Your task to perform on an android device: Open accessibility settings Image 0: 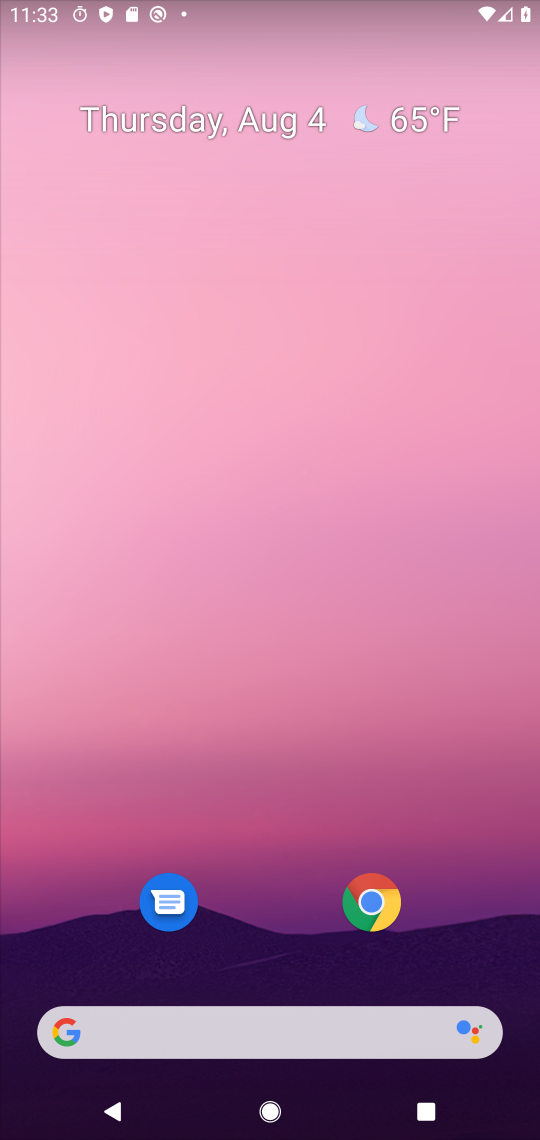
Step 0: press home button
Your task to perform on an android device: Open accessibility settings Image 1: 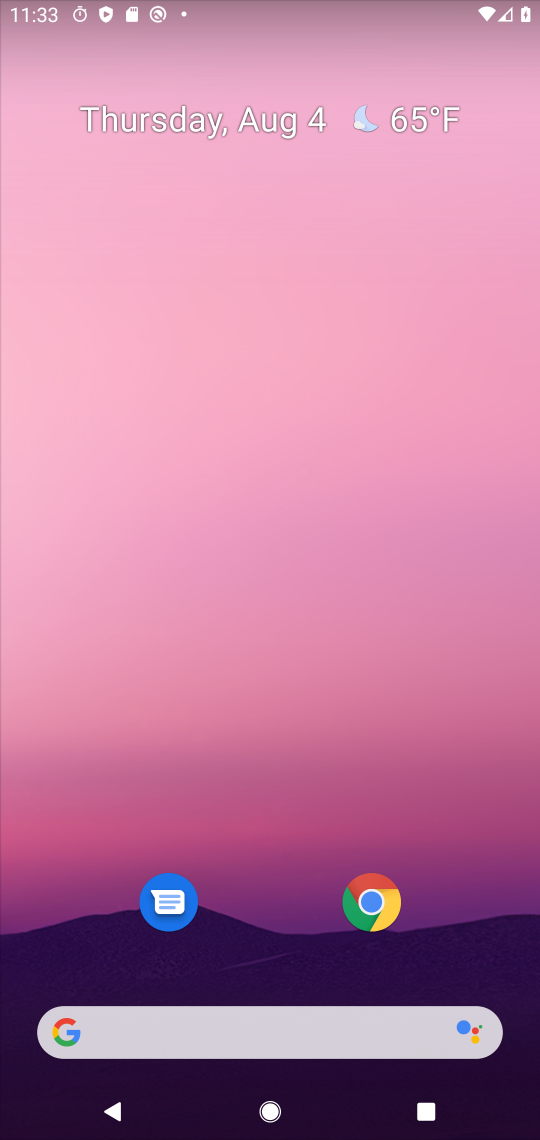
Step 1: drag from (334, 1052) to (289, 280)
Your task to perform on an android device: Open accessibility settings Image 2: 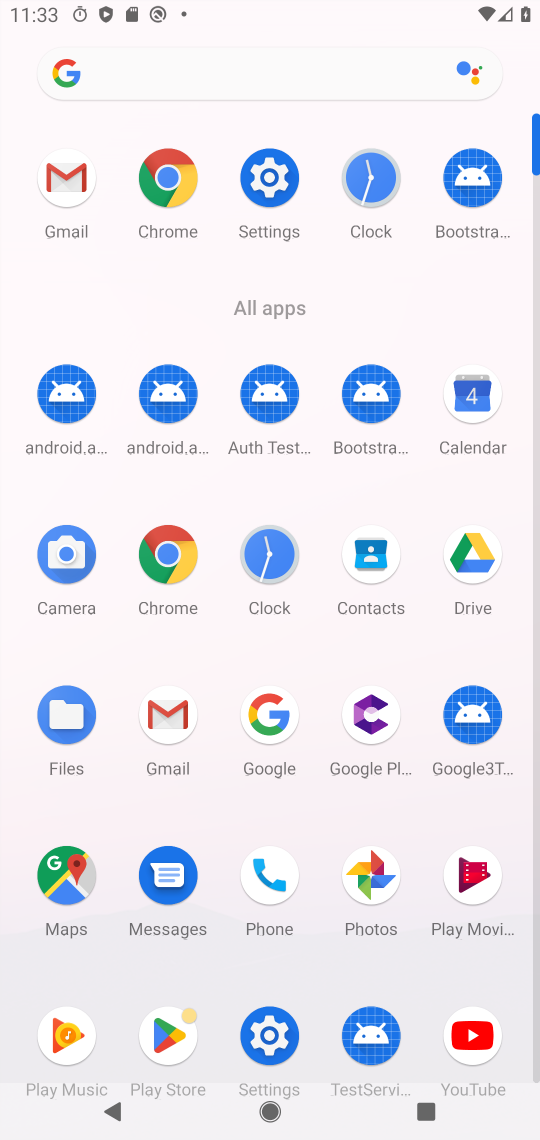
Step 2: click (333, 150)
Your task to perform on an android device: Open accessibility settings Image 3: 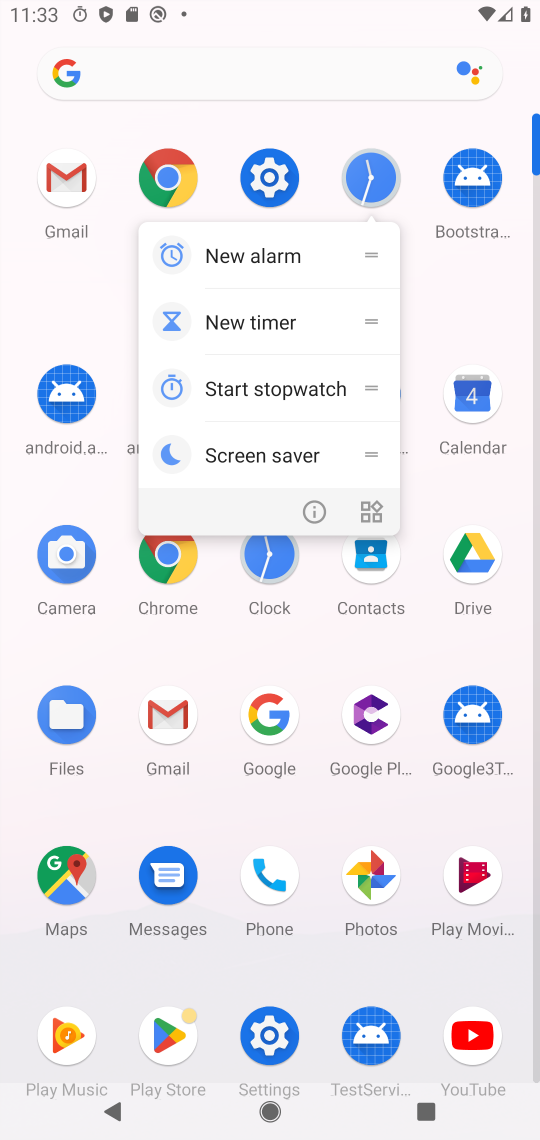
Step 3: click (241, 182)
Your task to perform on an android device: Open accessibility settings Image 4: 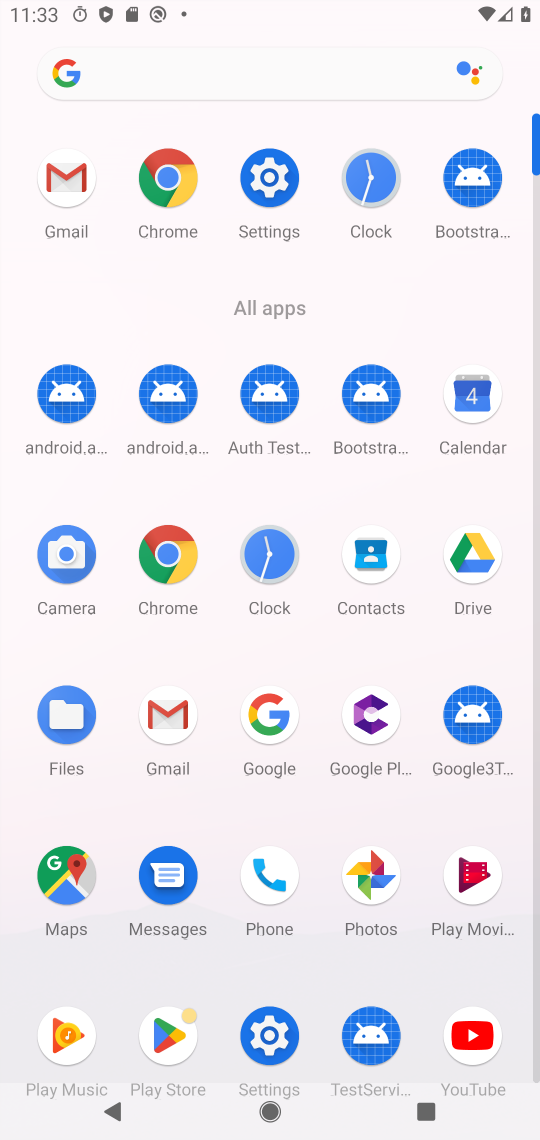
Step 4: click (273, 191)
Your task to perform on an android device: Open accessibility settings Image 5: 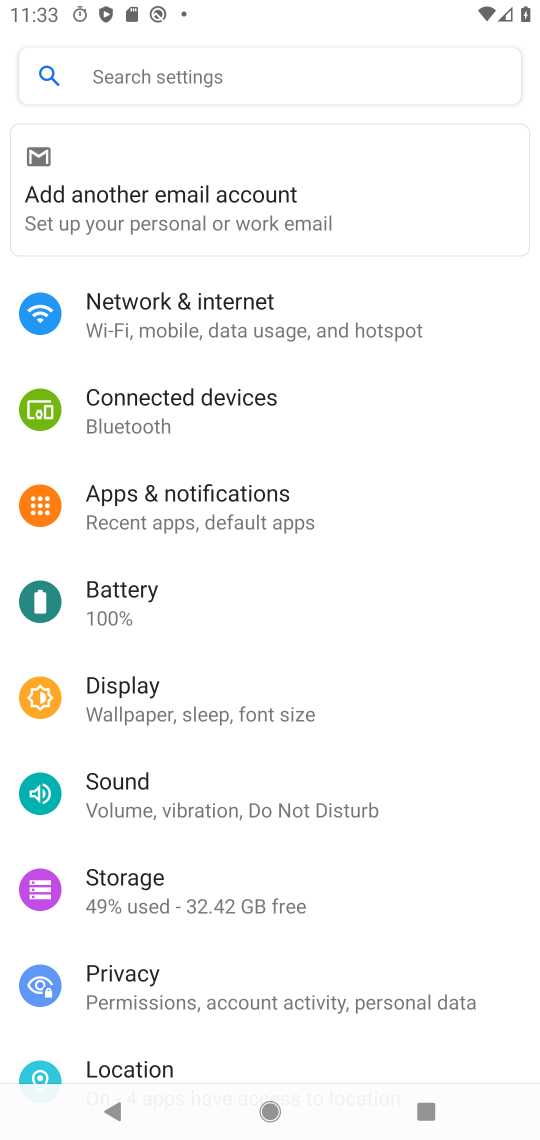
Step 5: click (150, 77)
Your task to perform on an android device: Open accessibility settings Image 6: 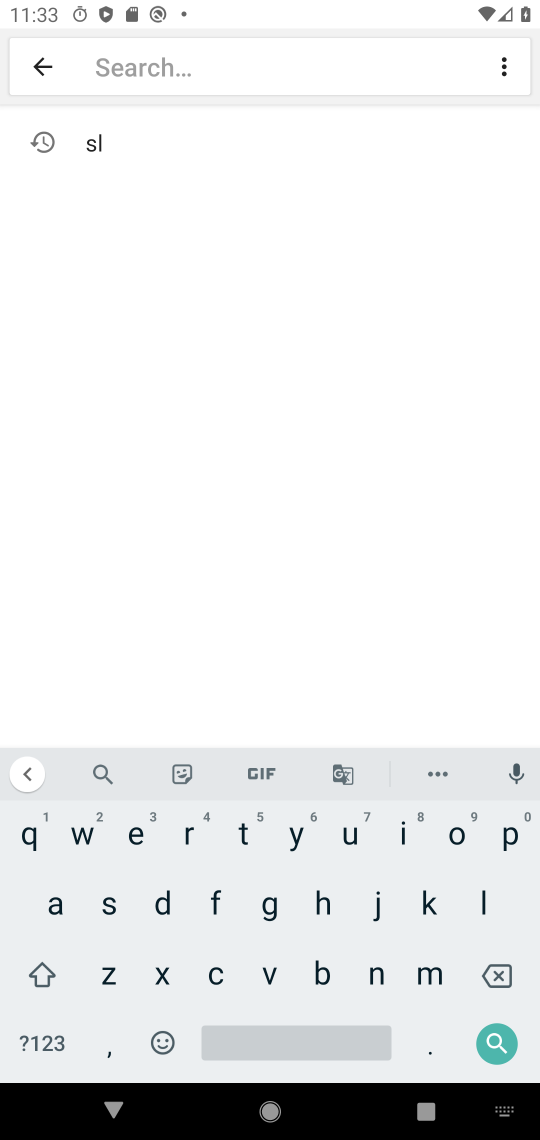
Step 6: click (51, 897)
Your task to perform on an android device: Open accessibility settings Image 7: 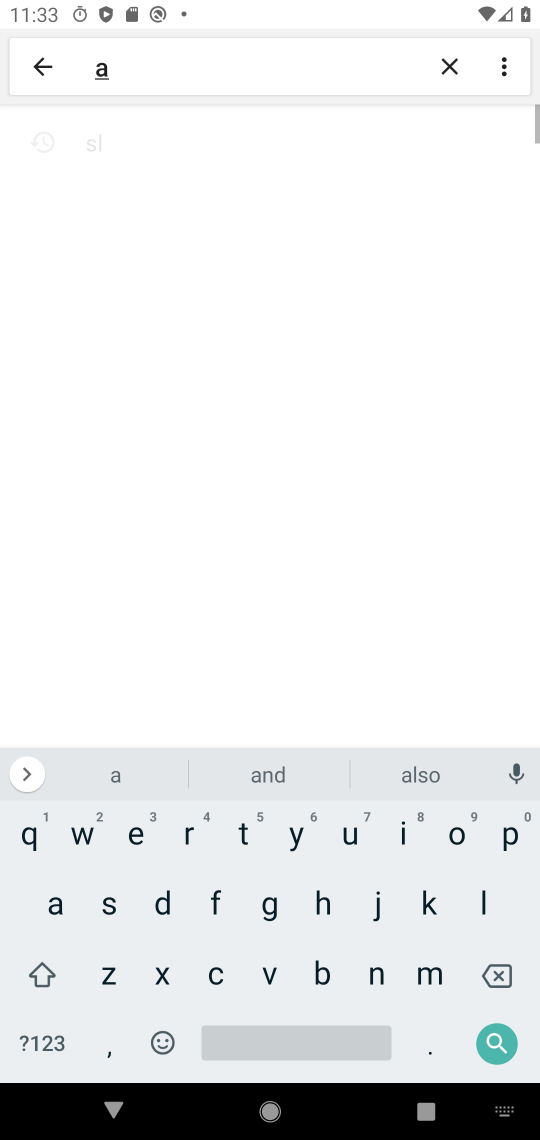
Step 7: click (211, 971)
Your task to perform on an android device: Open accessibility settings Image 8: 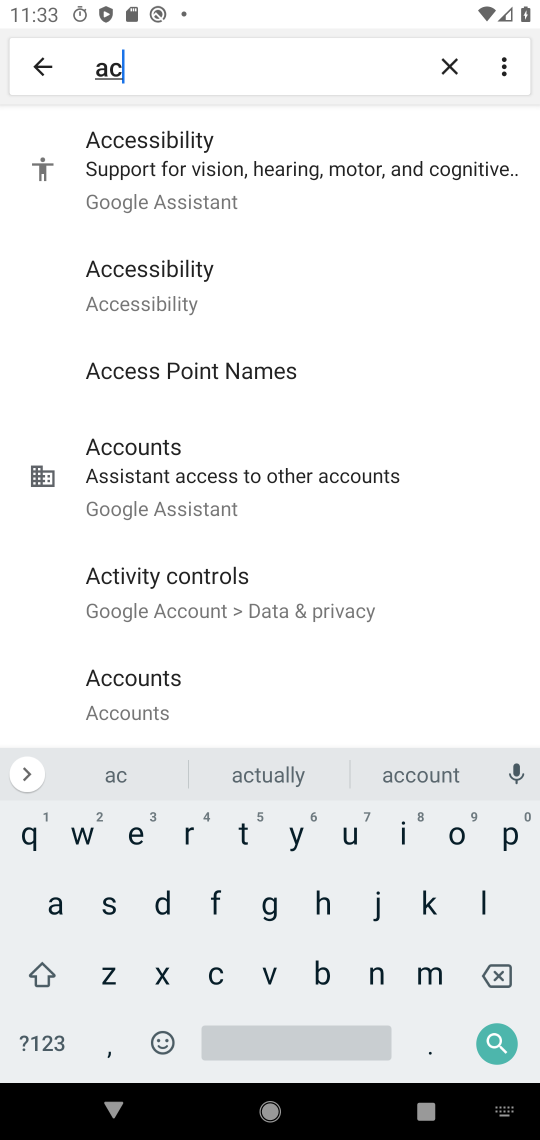
Step 8: click (138, 140)
Your task to perform on an android device: Open accessibility settings Image 9: 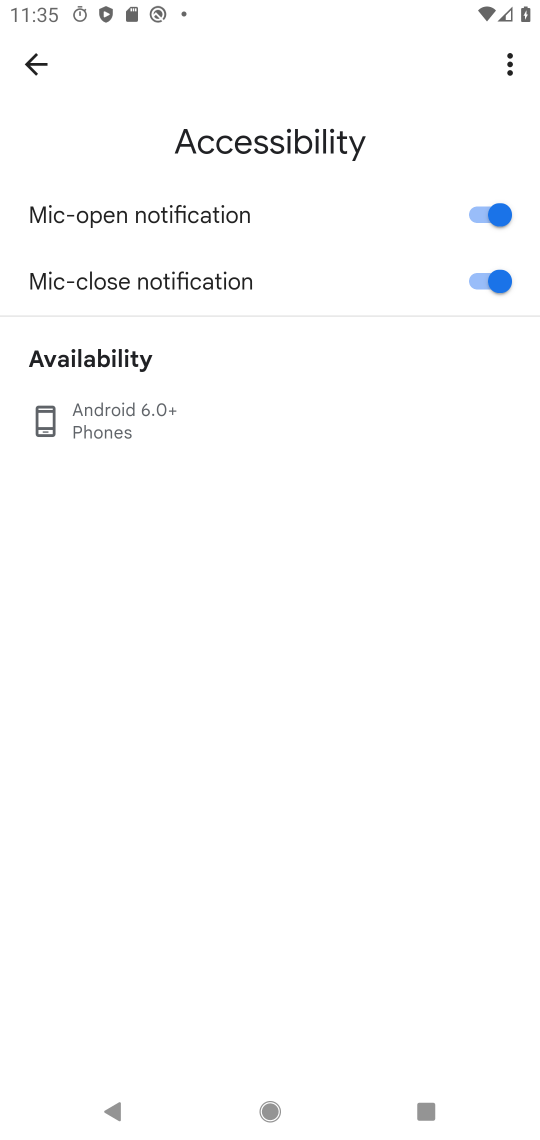
Step 9: task complete